Your task to perform on an android device: Go to ESPN.com Image 0: 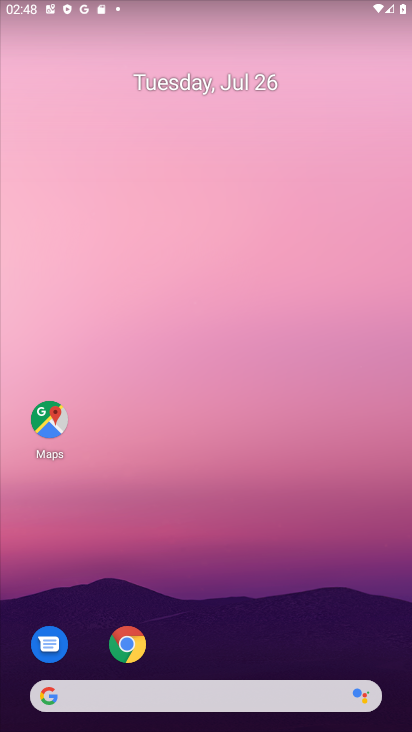
Step 0: click (134, 644)
Your task to perform on an android device: Go to ESPN.com Image 1: 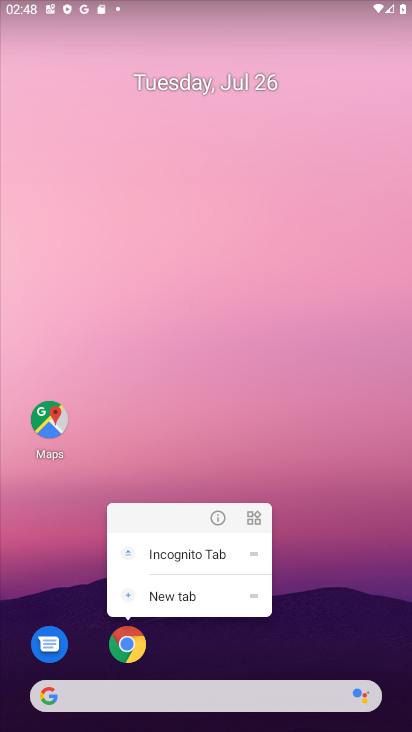
Step 1: click (128, 631)
Your task to perform on an android device: Go to ESPN.com Image 2: 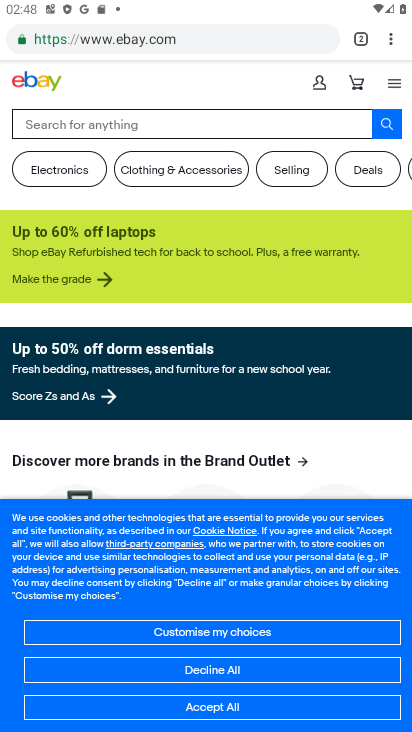
Step 2: click (354, 27)
Your task to perform on an android device: Go to ESPN.com Image 3: 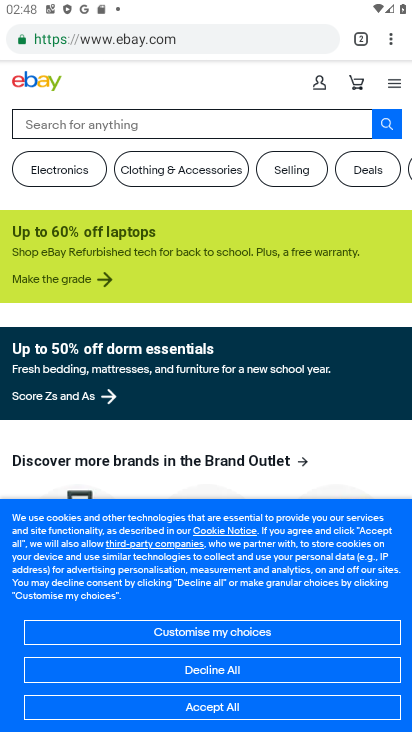
Step 3: click (364, 39)
Your task to perform on an android device: Go to ESPN.com Image 4: 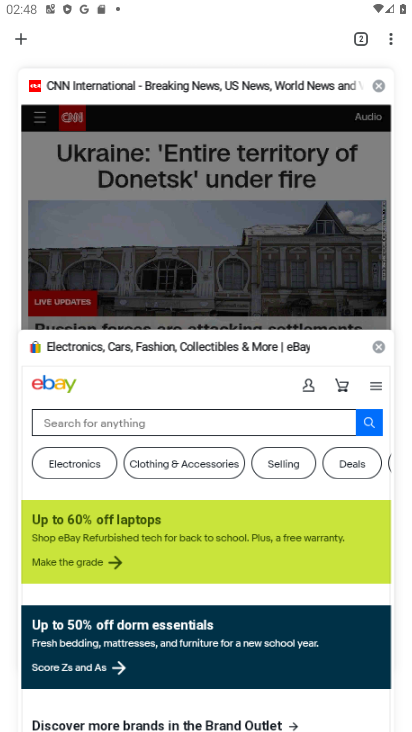
Step 4: click (22, 35)
Your task to perform on an android device: Go to ESPN.com Image 5: 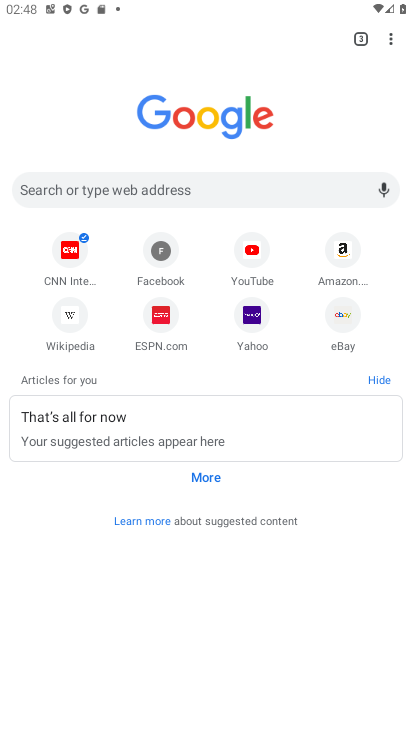
Step 5: click (151, 317)
Your task to perform on an android device: Go to ESPN.com Image 6: 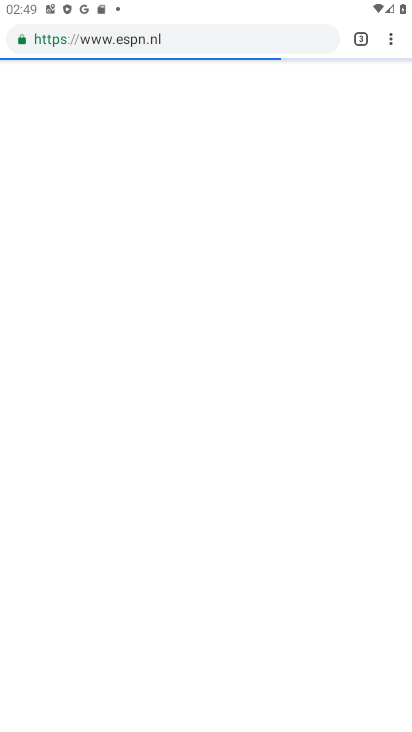
Step 6: task complete